Your task to perform on an android device: Go to accessibility settings Image 0: 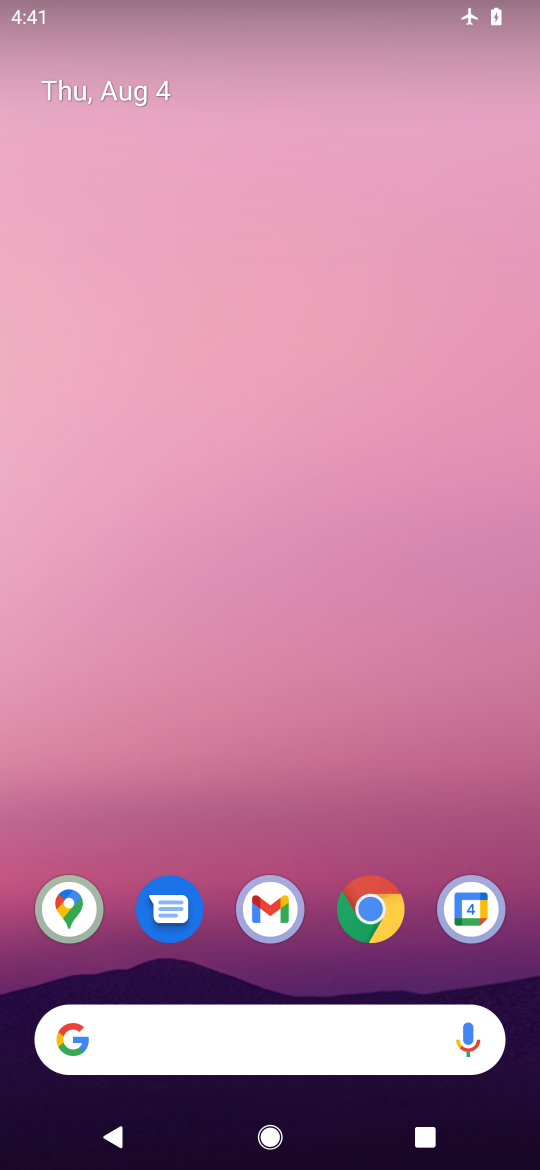
Step 0: press home button
Your task to perform on an android device: Go to accessibility settings Image 1: 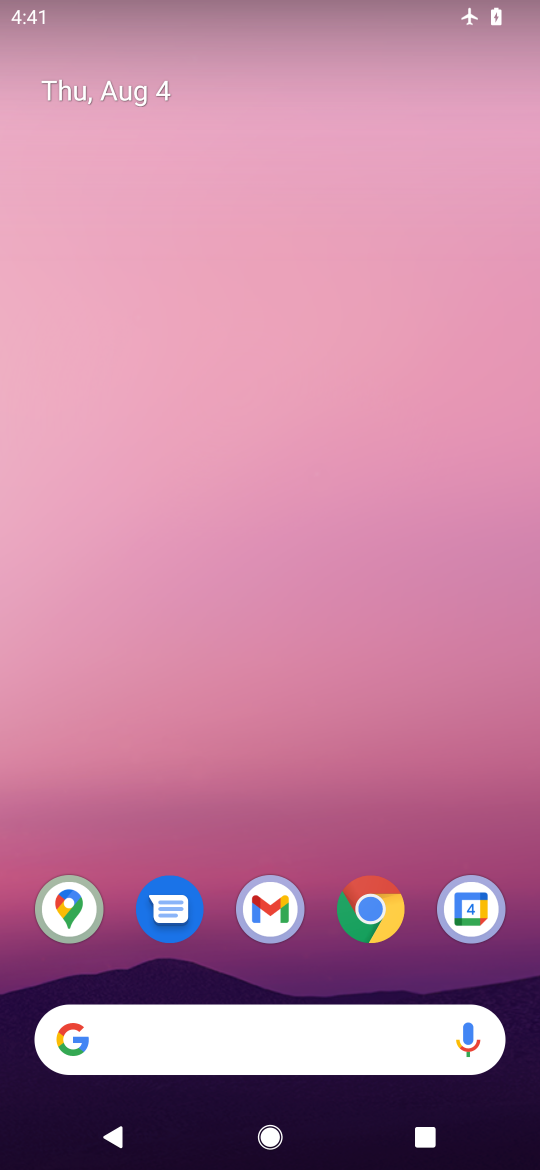
Step 1: drag from (404, 754) to (448, 163)
Your task to perform on an android device: Go to accessibility settings Image 2: 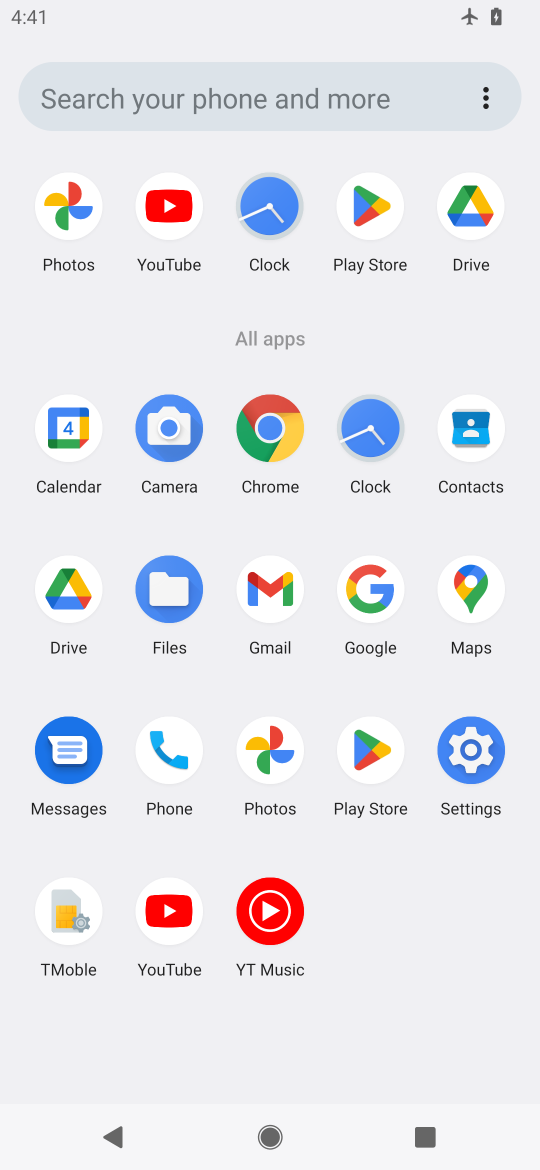
Step 2: click (496, 749)
Your task to perform on an android device: Go to accessibility settings Image 3: 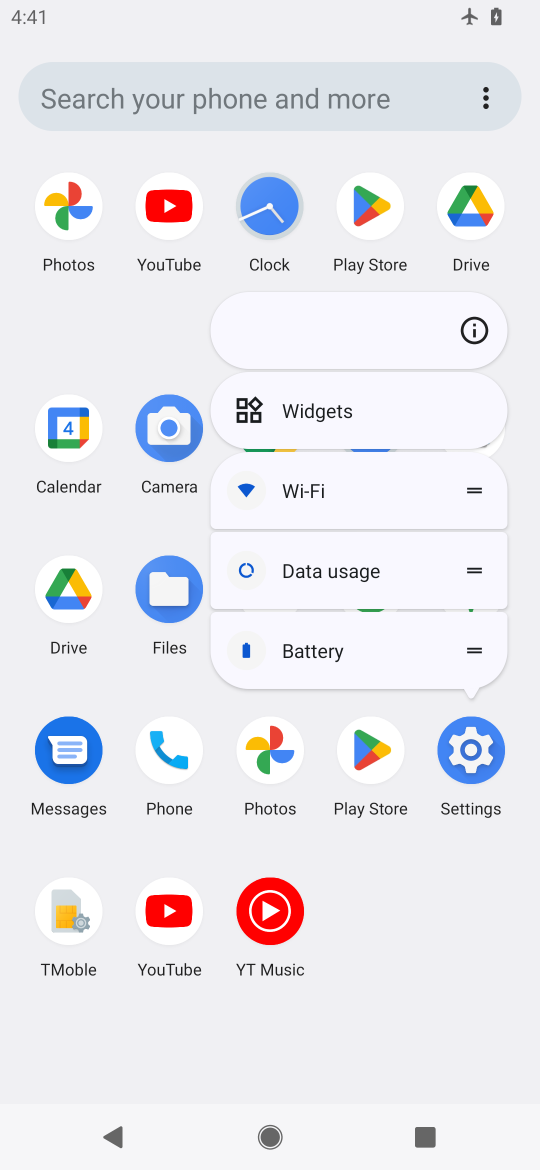
Step 3: click (486, 753)
Your task to perform on an android device: Go to accessibility settings Image 4: 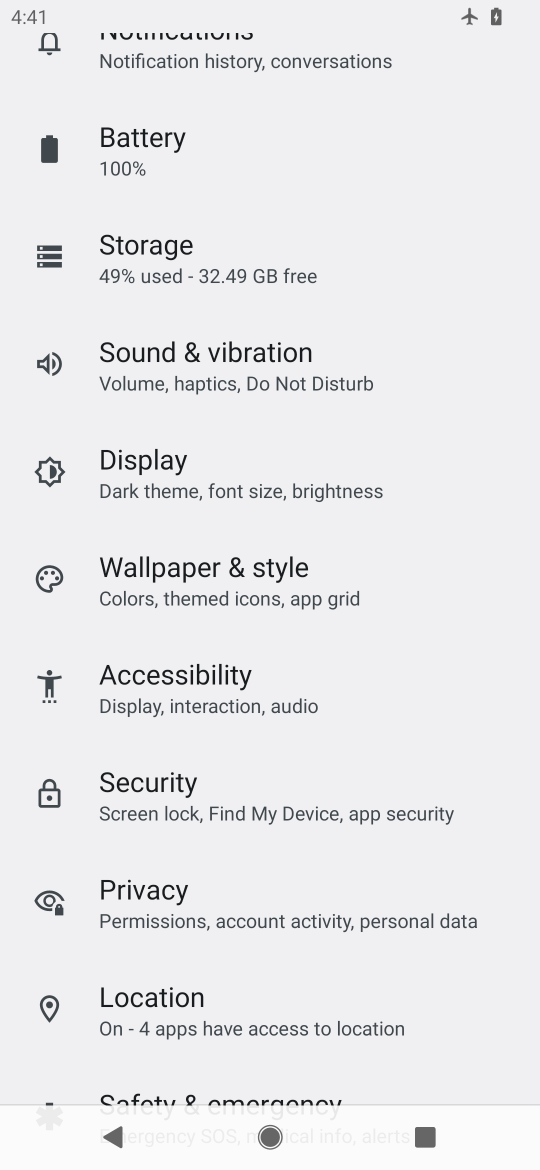
Step 4: click (142, 689)
Your task to perform on an android device: Go to accessibility settings Image 5: 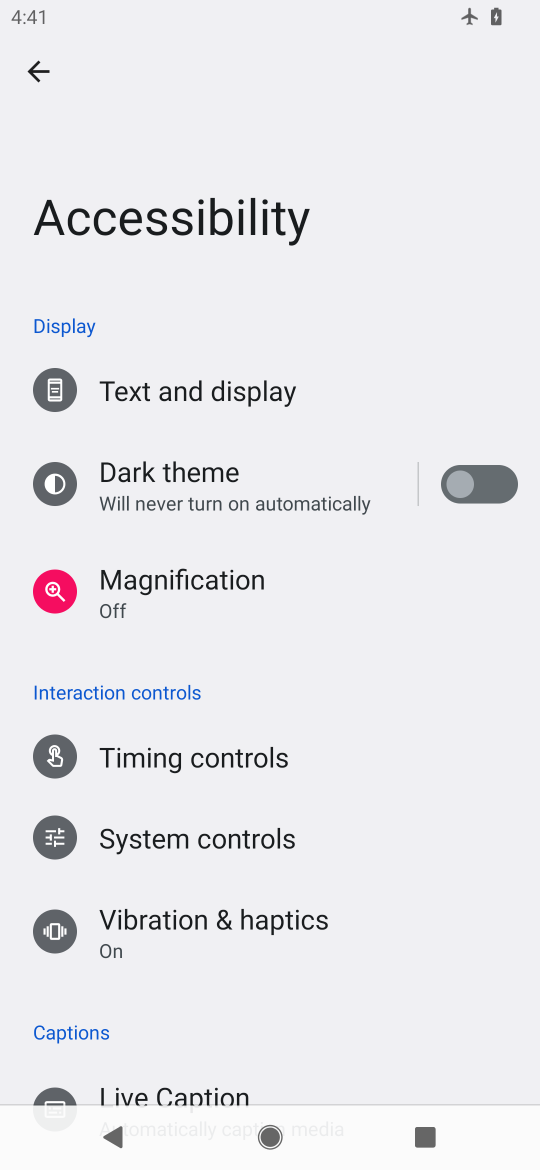
Step 5: task complete